Your task to perform on an android device: Open my contact list Image 0: 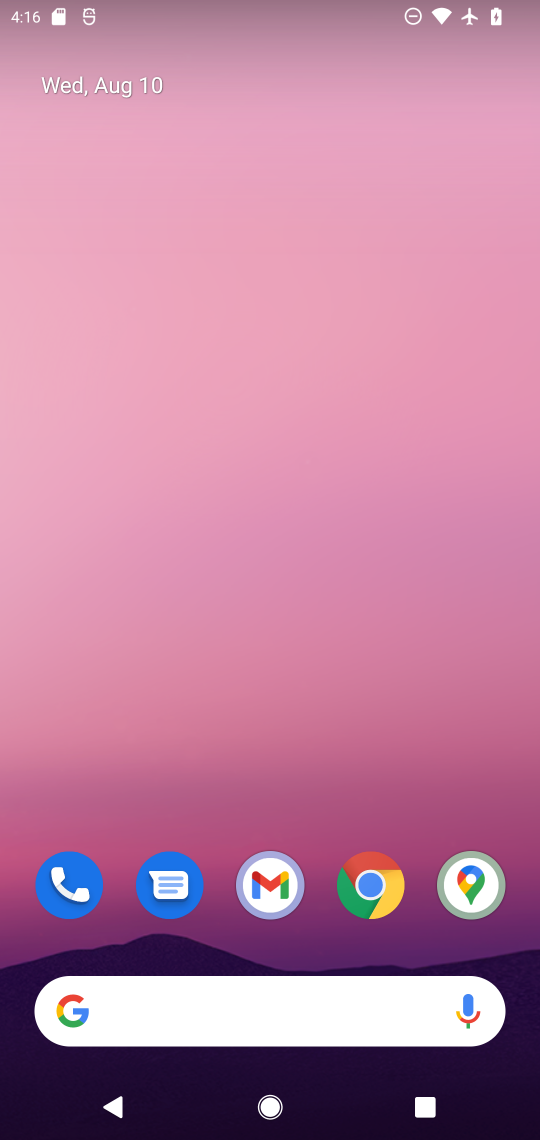
Step 0: drag from (322, 950) to (286, 249)
Your task to perform on an android device: Open my contact list Image 1: 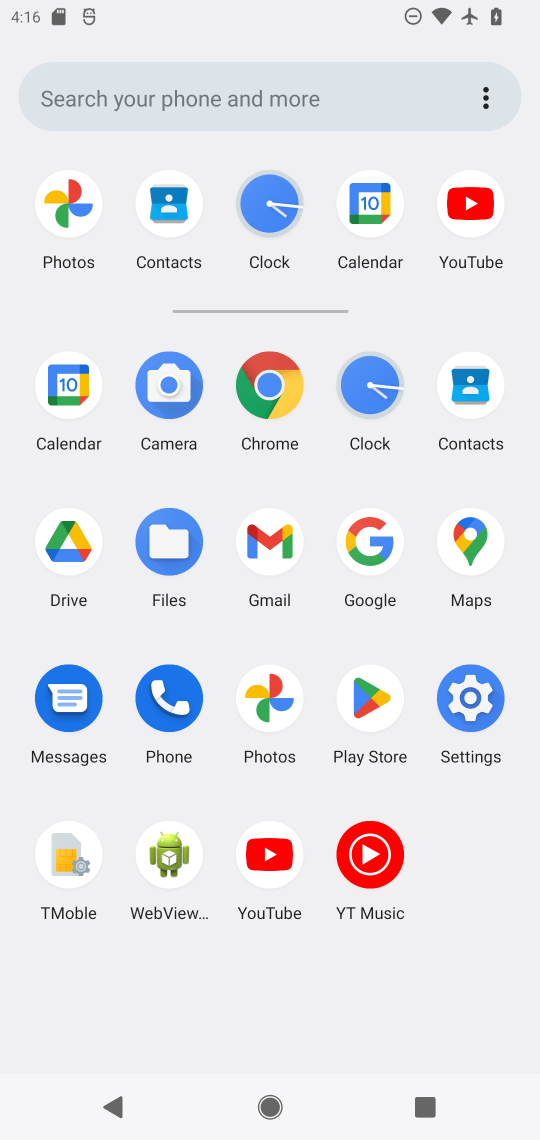
Step 1: click (467, 381)
Your task to perform on an android device: Open my contact list Image 2: 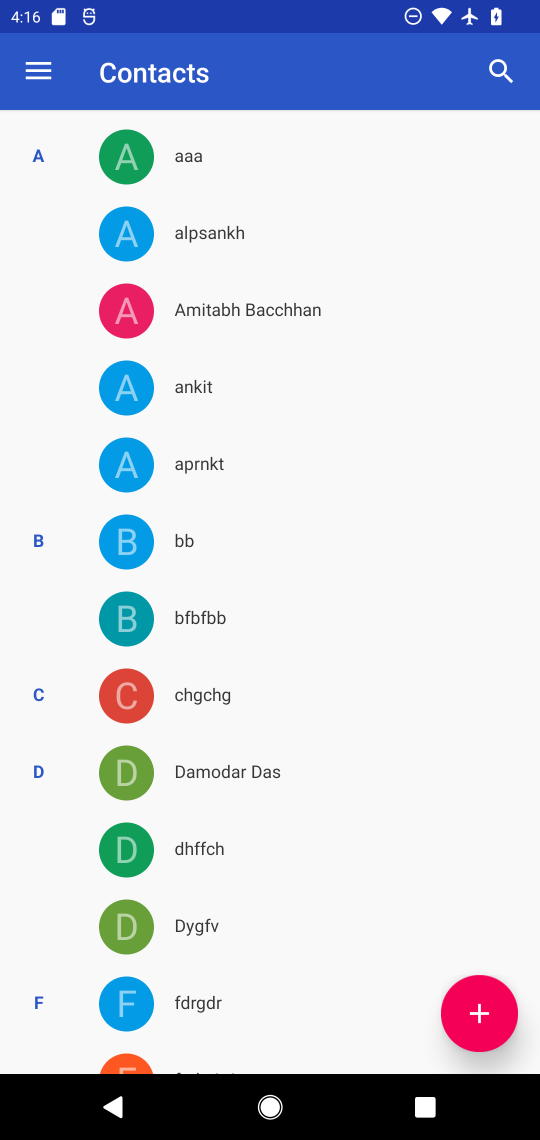
Step 2: task complete